Your task to perform on an android device: toggle airplane mode Image 0: 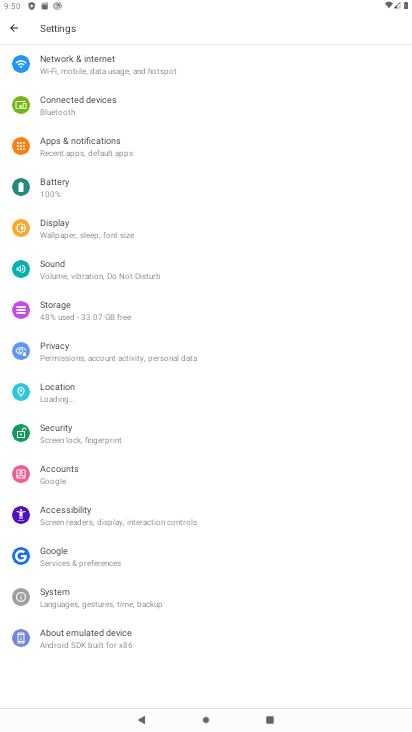
Step 0: click (177, 63)
Your task to perform on an android device: toggle airplane mode Image 1: 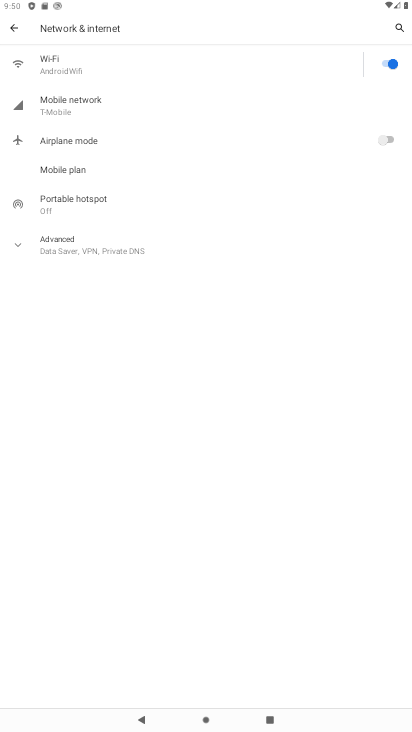
Step 1: click (385, 144)
Your task to perform on an android device: toggle airplane mode Image 2: 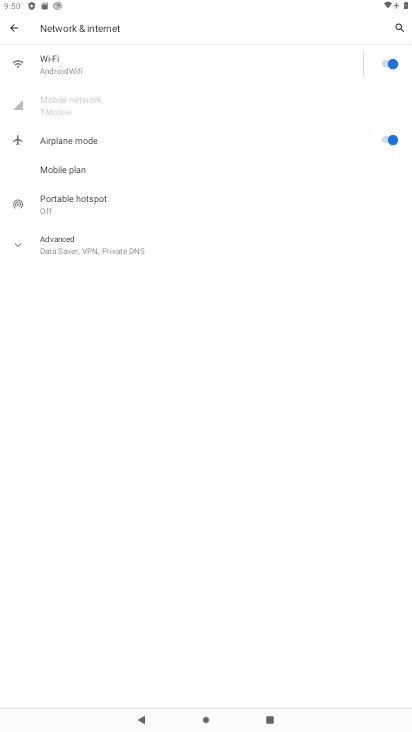
Step 2: task complete